Your task to perform on an android device: turn notification dots on Image 0: 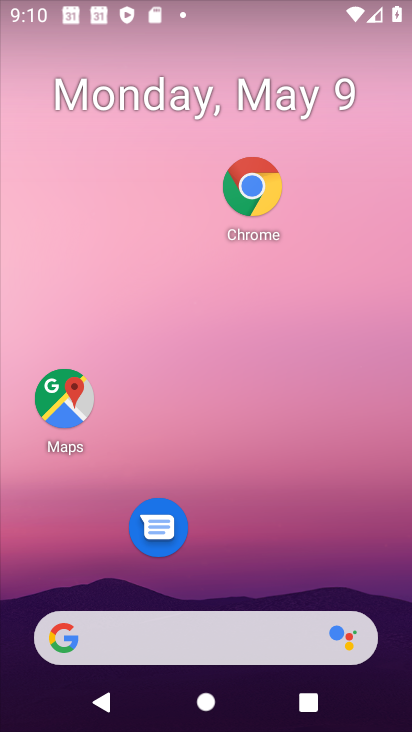
Step 0: drag from (207, 592) to (287, 56)
Your task to perform on an android device: turn notification dots on Image 1: 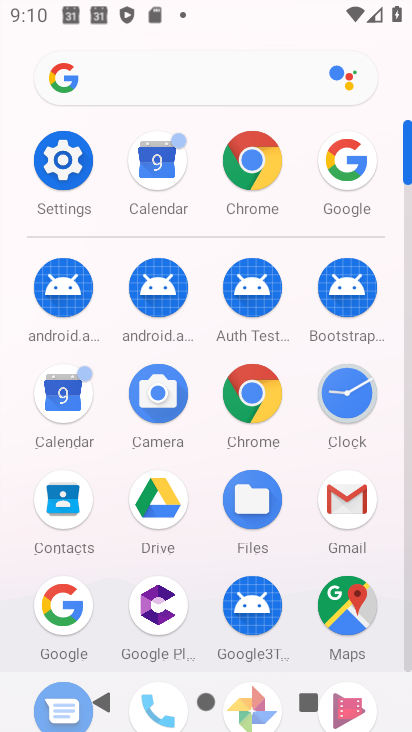
Step 1: click (54, 156)
Your task to perform on an android device: turn notification dots on Image 2: 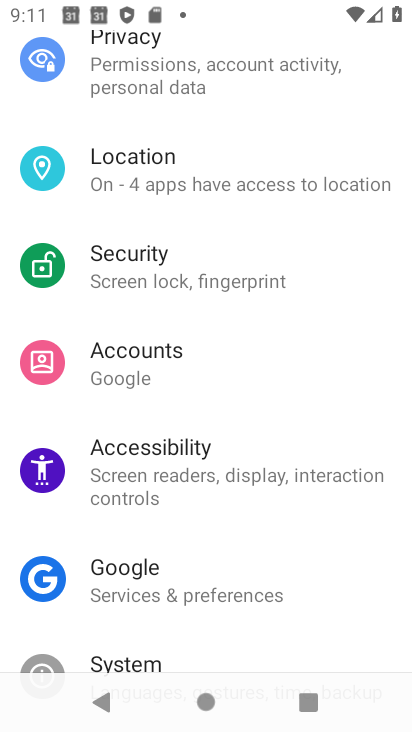
Step 2: drag from (194, 79) to (190, 508)
Your task to perform on an android device: turn notification dots on Image 3: 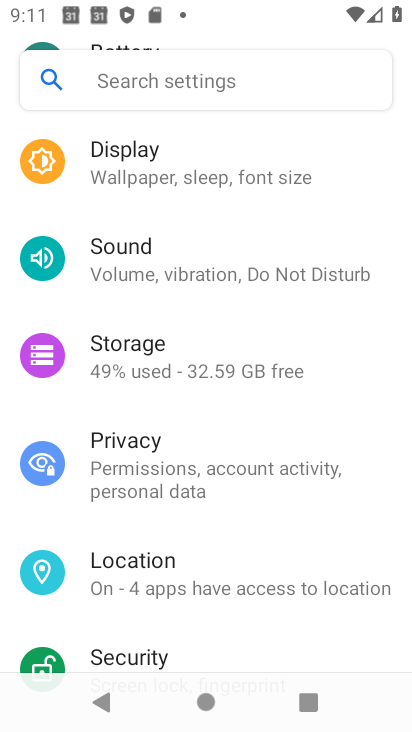
Step 3: drag from (171, 163) to (177, 671)
Your task to perform on an android device: turn notification dots on Image 4: 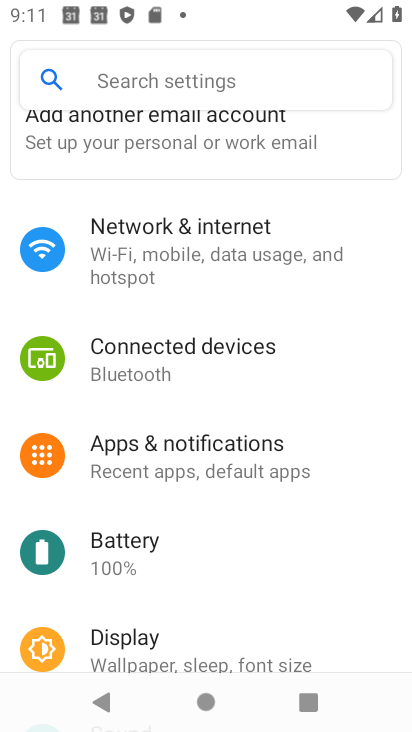
Step 4: click (192, 452)
Your task to perform on an android device: turn notification dots on Image 5: 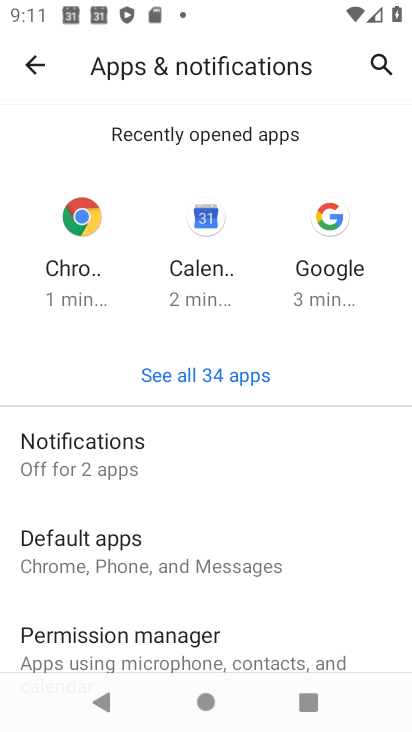
Step 5: click (167, 454)
Your task to perform on an android device: turn notification dots on Image 6: 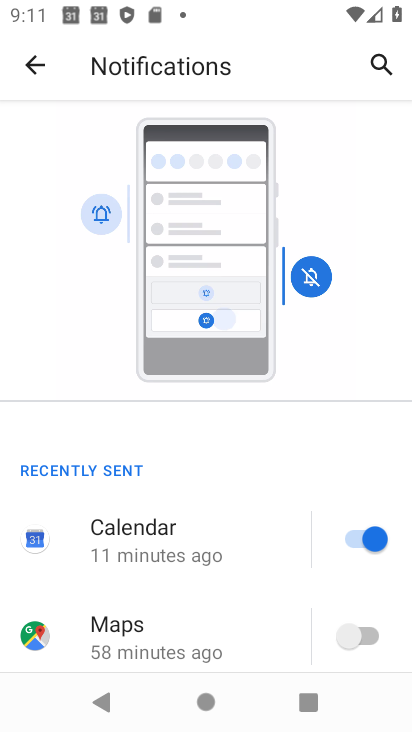
Step 6: drag from (228, 610) to (309, 43)
Your task to perform on an android device: turn notification dots on Image 7: 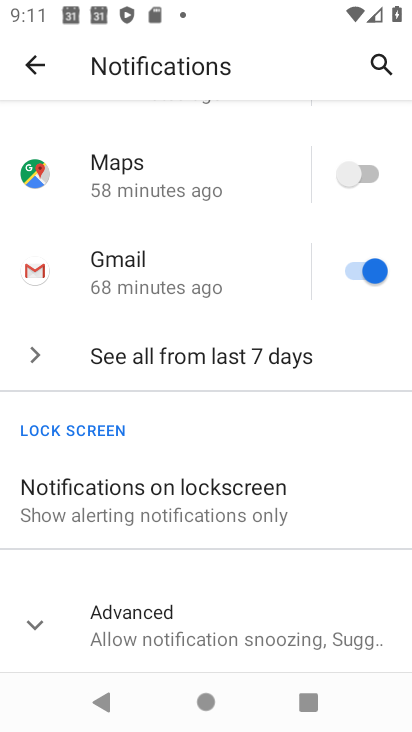
Step 7: click (43, 625)
Your task to perform on an android device: turn notification dots on Image 8: 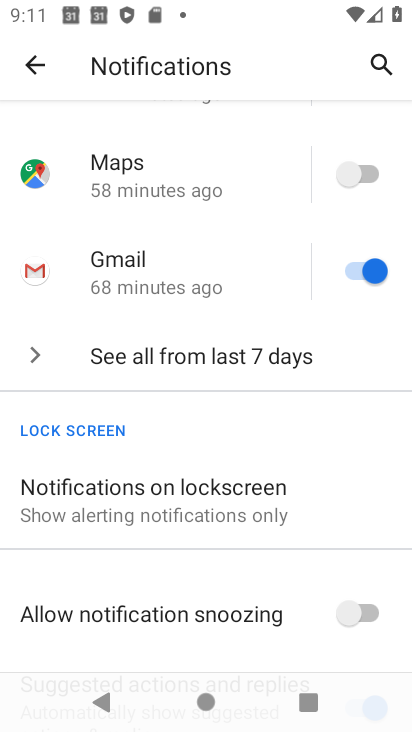
Step 8: drag from (214, 594) to (307, 144)
Your task to perform on an android device: turn notification dots on Image 9: 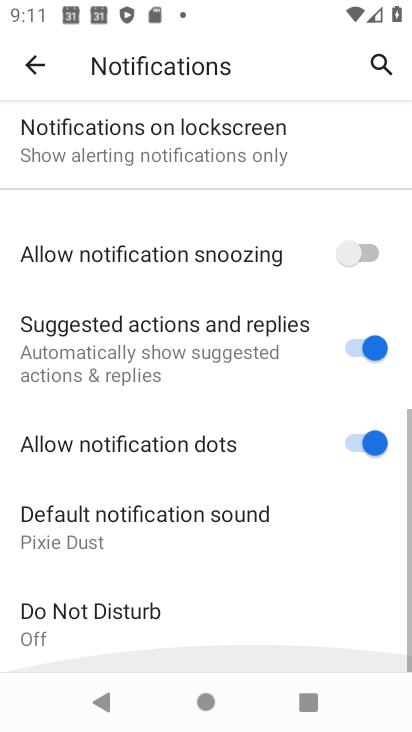
Step 9: click (315, 113)
Your task to perform on an android device: turn notification dots on Image 10: 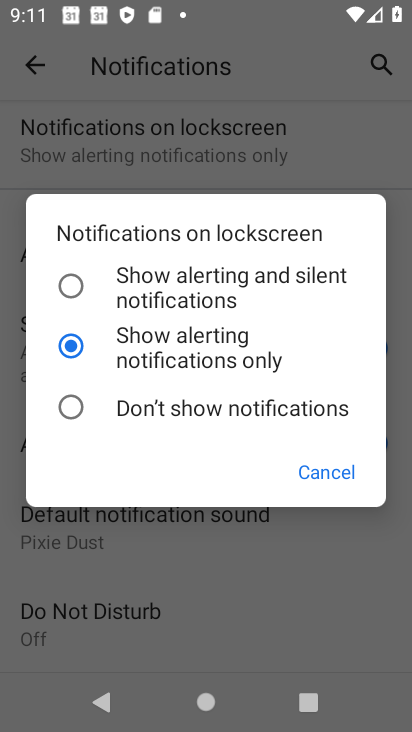
Step 10: click (312, 475)
Your task to perform on an android device: turn notification dots on Image 11: 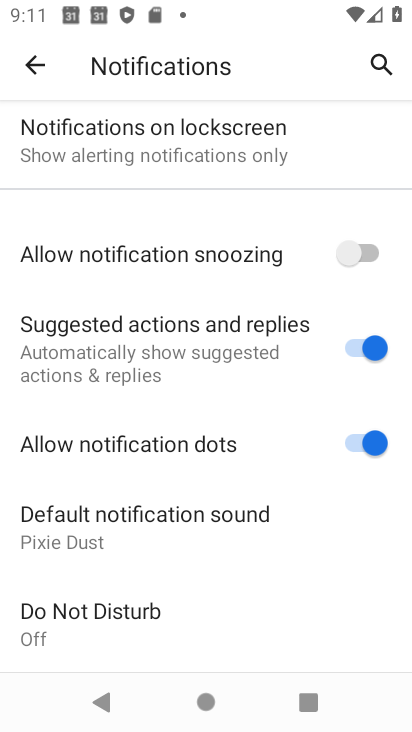
Step 11: task complete